Your task to perform on an android device: toggle airplane mode Image 0: 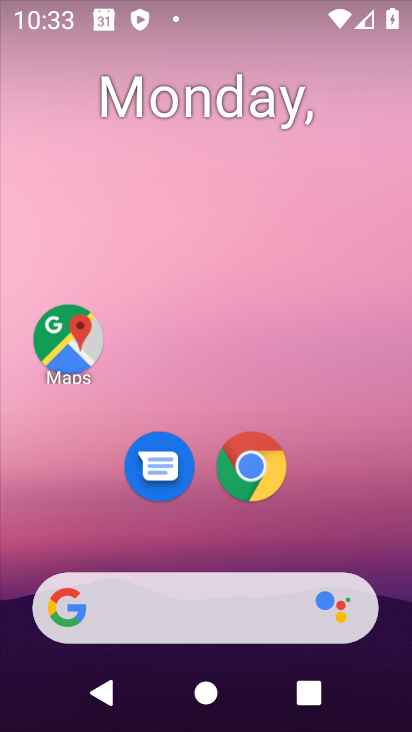
Step 0: drag from (323, 248) to (275, 22)
Your task to perform on an android device: toggle airplane mode Image 1: 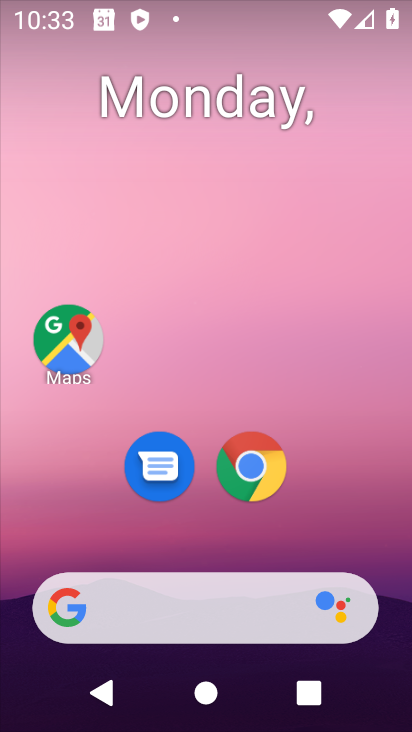
Step 1: drag from (334, 494) to (275, 51)
Your task to perform on an android device: toggle airplane mode Image 2: 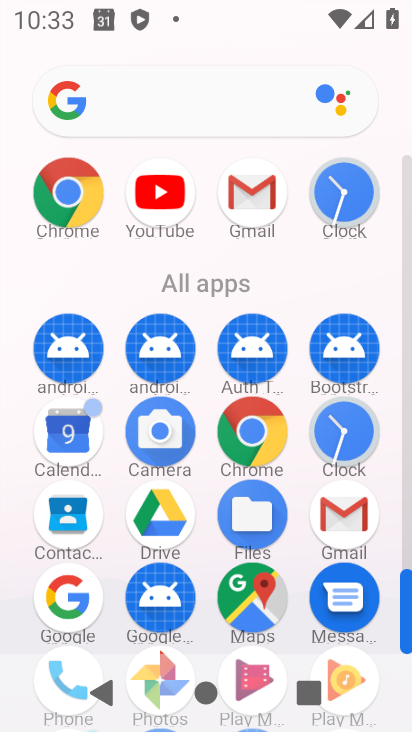
Step 2: drag from (191, 618) to (235, 242)
Your task to perform on an android device: toggle airplane mode Image 3: 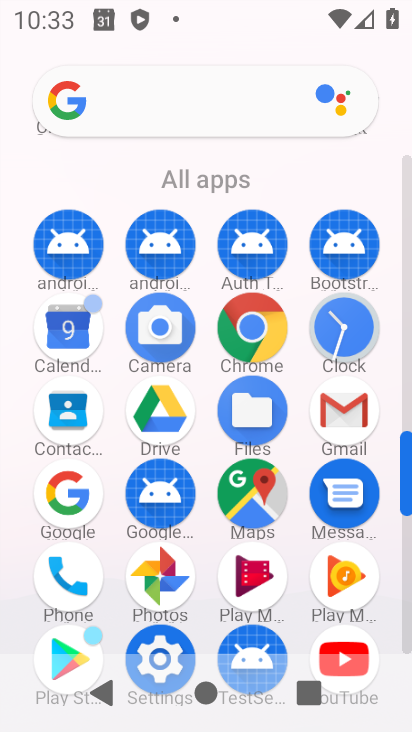
Step 3: click (156, 633)
Your task to perform on an android device: toggle airplane mode Image 4: 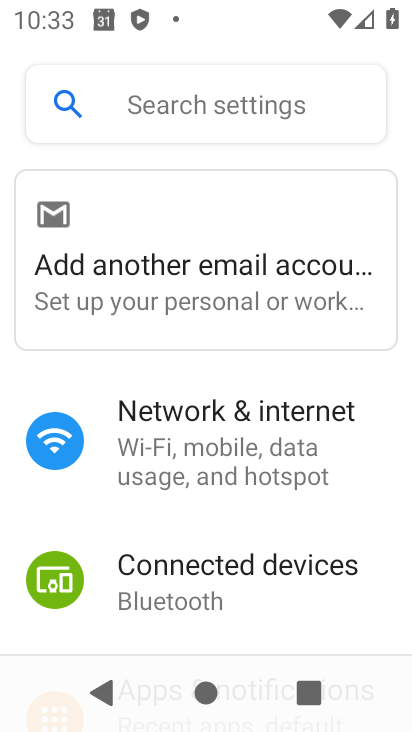
Step 4: click (272, 438)
Your task to perform on an android device: toggle airplane mode Image 5: 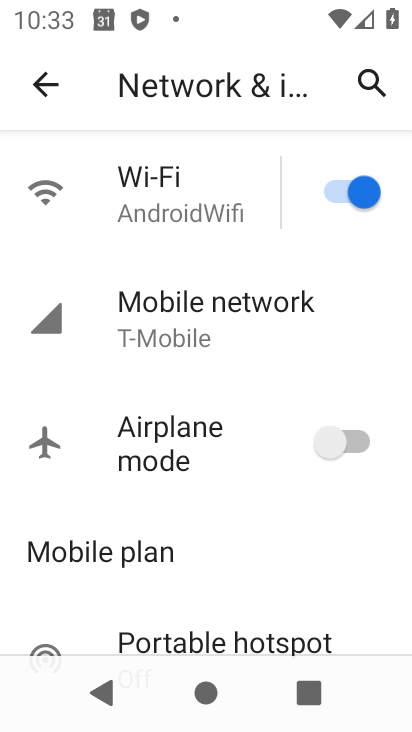
Step 5: click (353, 446)
Your task to perform on an android device: toggle airplane mode Image 6: 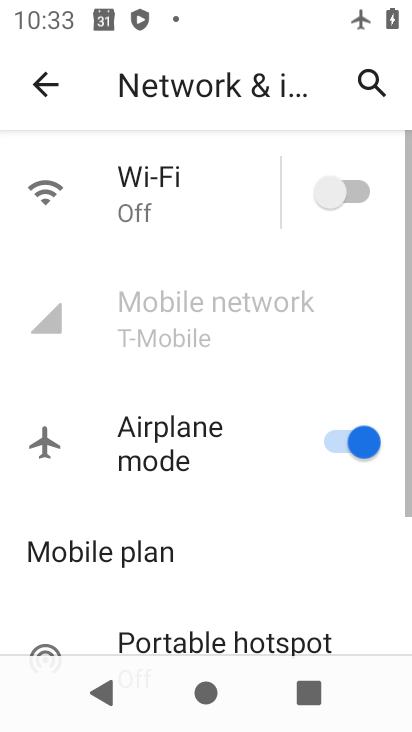
Step 6: task complete